Your task to perform on an android device: delete a single message in the gmail app Image 0: 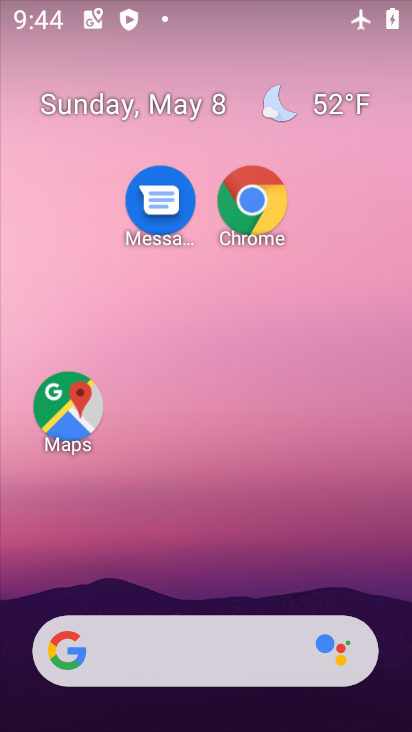
Step 0: drag from (231, 600) to (178, 35)
Your task to perform on an android device: delete a single message in the gmail app Image 1: 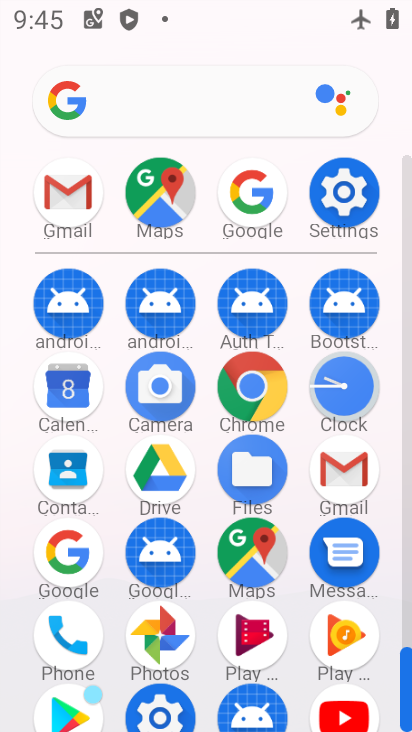
Step 1: click (341, 464)
Your task to perform on an android device: delete a single message in the gmail app Image 2: 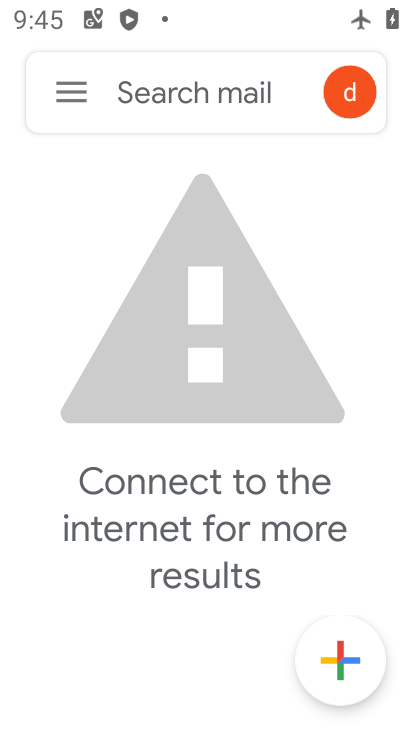
Step 2: task complete